Your task to perform on an android device: Go to notification settings Image 0: 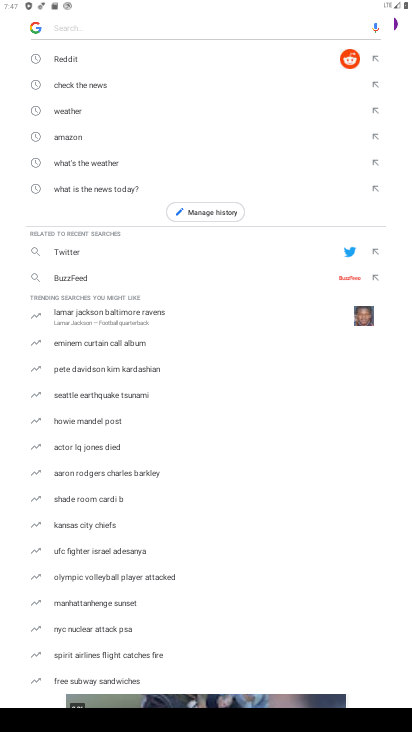
Step 0: press home button
Your task to perform on an android device: Go to notification settings Image 1: 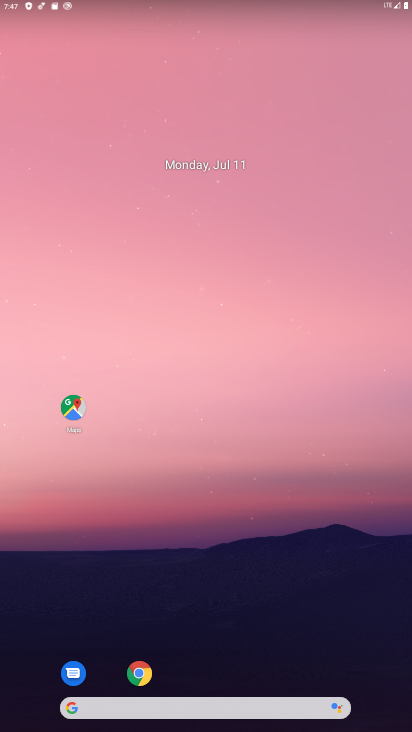
Step 1: drag from (277, 577) to (178, 62)
Your task to perform on an android device: Go to notification settings Image 2: 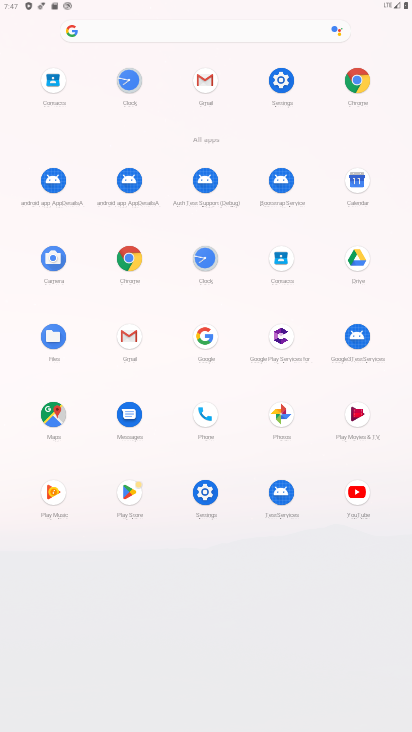
Step 2: click (285, 83)
Your task to perform on an android device: Go to notification settings Image 3: 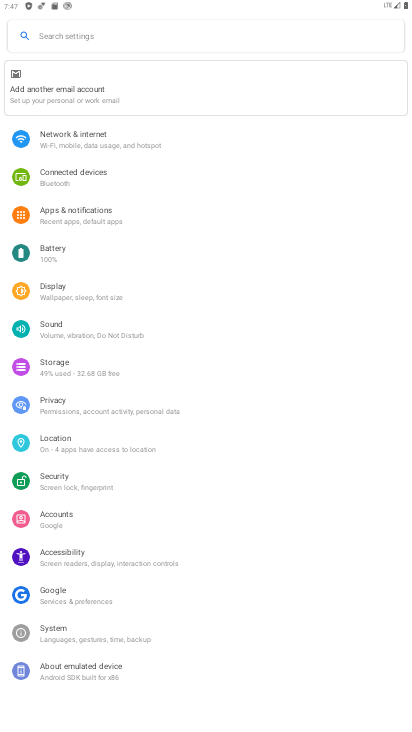
Step 3: click (102, 216)
Your task to perform on an android device: Go to notification settings Image 4: 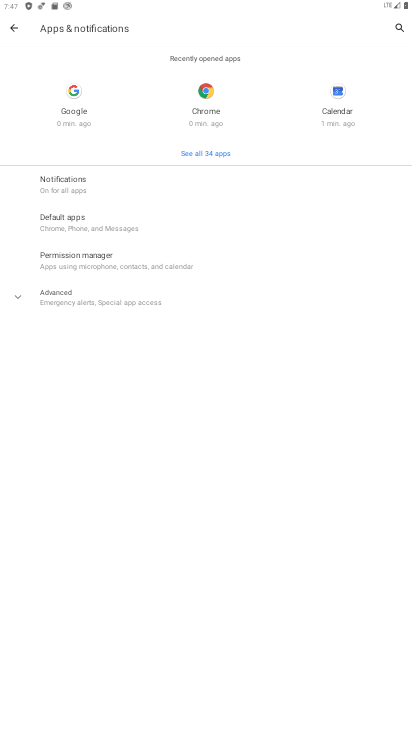
Step 4: click (72, 187)
Your task to perform on an android device: Go to notification settings Image 5: 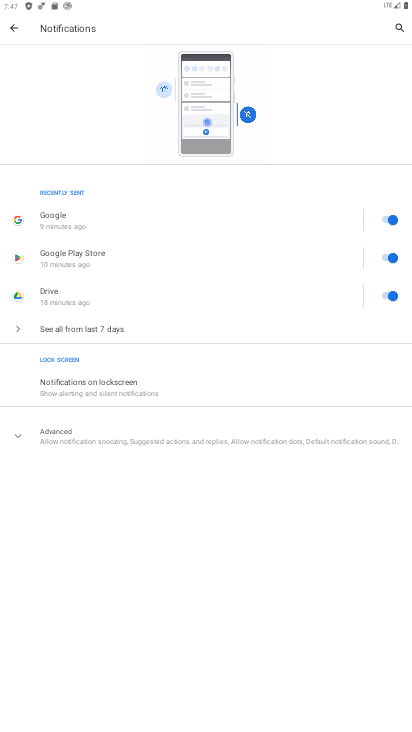
Step 5: task complete